Your task to perform on an android device: Open Chrome and go to the settings page Image 0: 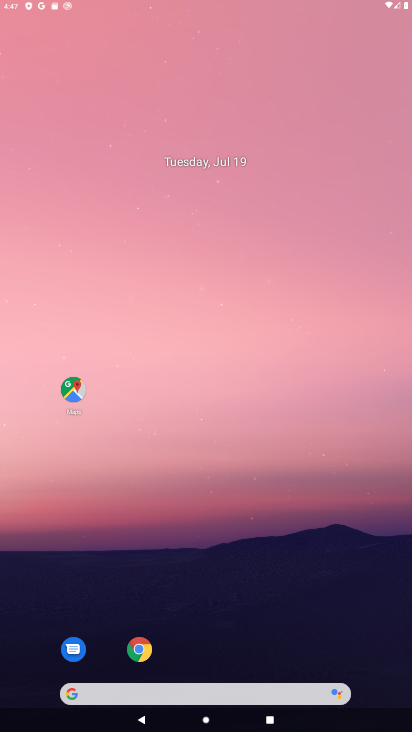
Step 0: press home button
Your task to perform on an android device: Open Chrome and go to the settings page Image 1: 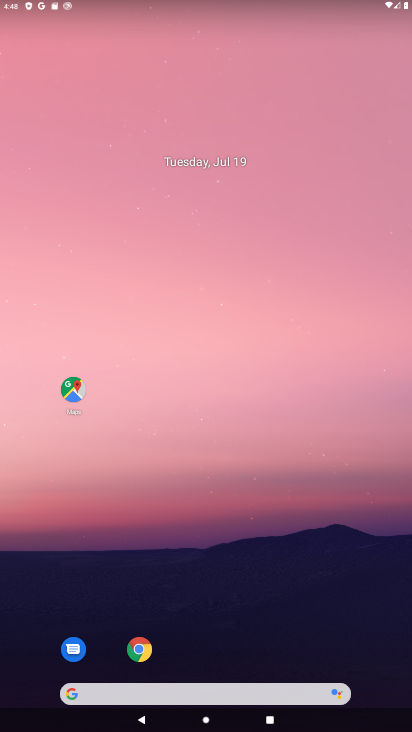
Step 1: click (139, 644)
Your task to perform on an android device: Open Chrome and go to the settings page Image 2: 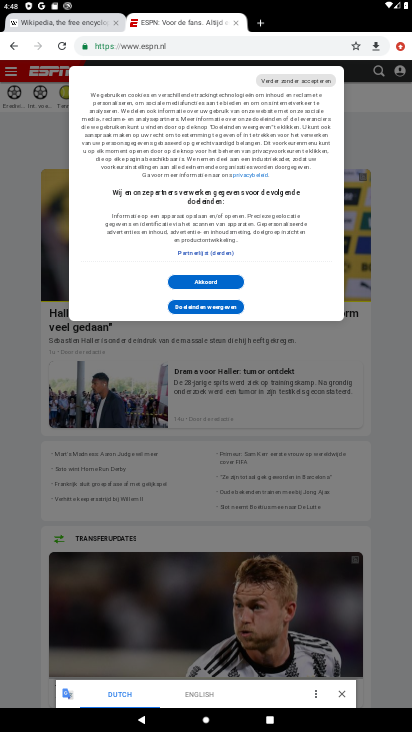
Step 2: click (400, 41)
Your task to perform on an android device: Open Chrome and go to the settings page Image 3: 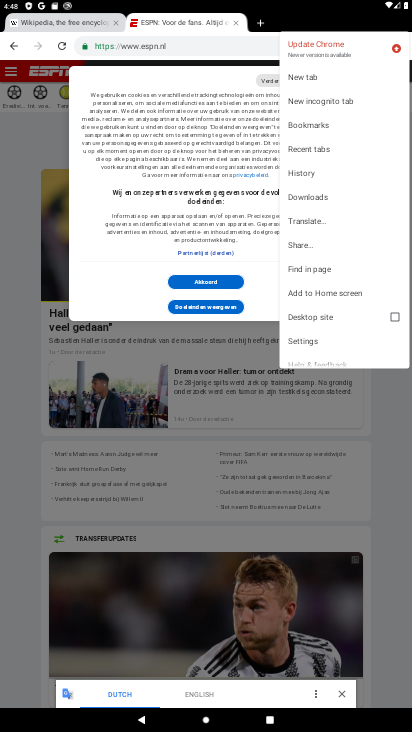
Step 3: click (327, 339)
Your task to perform on an android device: Open Chrome and go to the settings page Image 4: 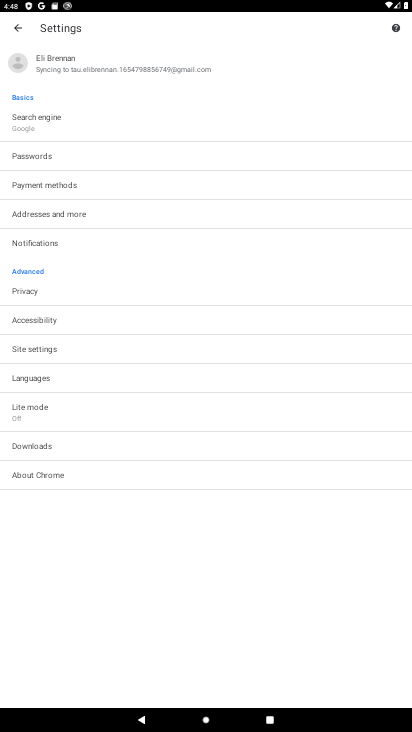
Step 4: task complete